Your task to perform on an android device: install app "Microsoft Excel" Image 0: 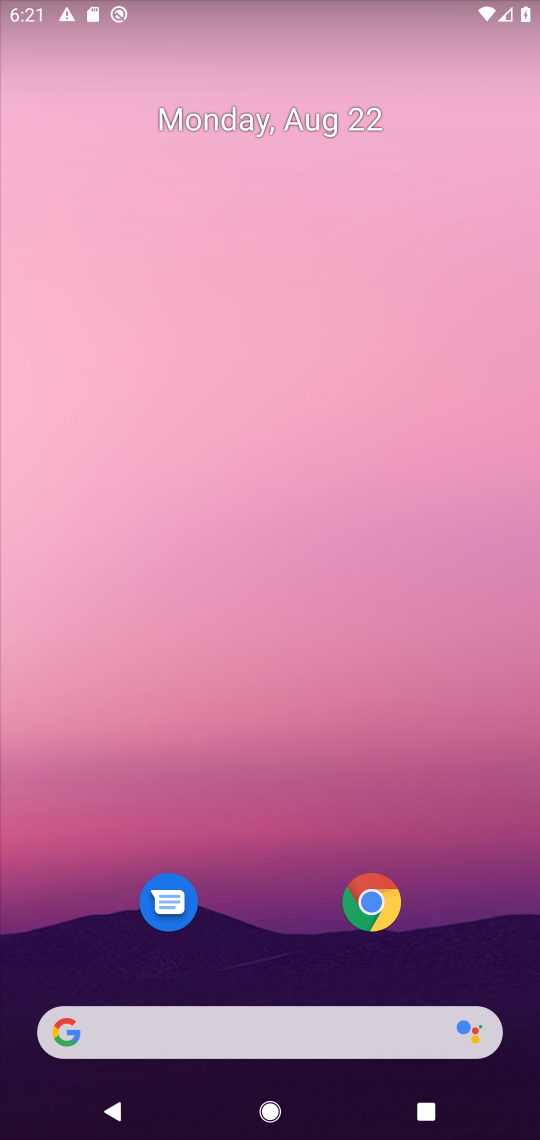
Step 0: drag from (269, 970) to (254, 17)
Your task to perform on an android device: install app "Microsoft Excel" Image 1: 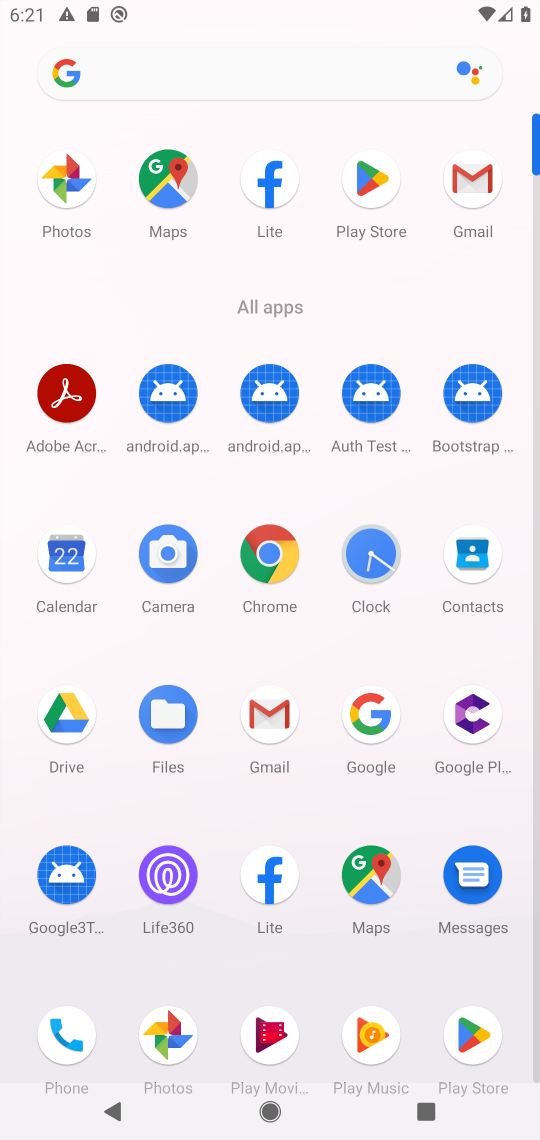
Step 1: click (377, 161)
Your task to perform on an android device: install app "Microsoft Excel" Image 2: 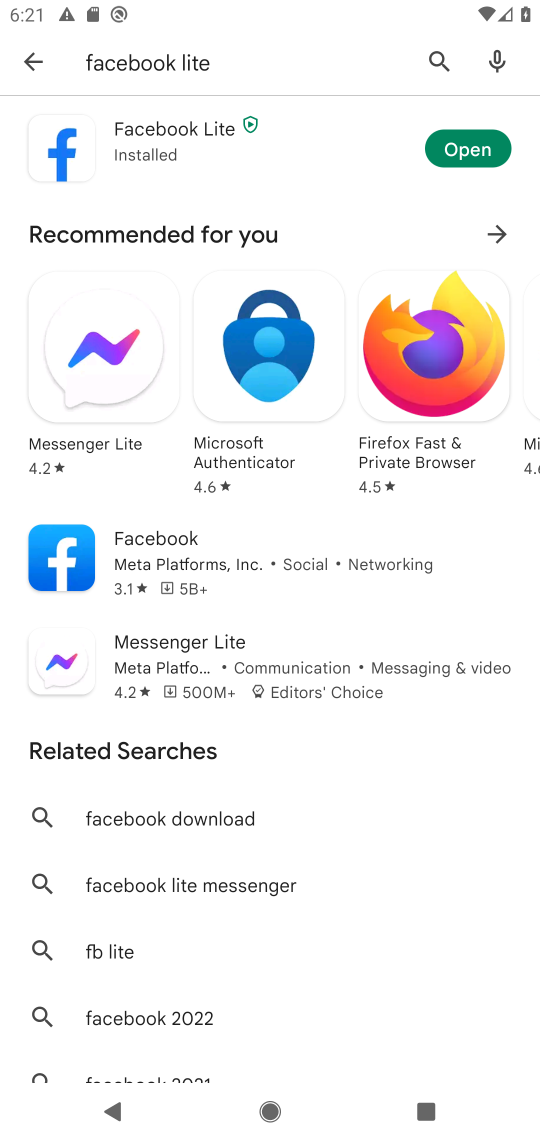
Step 2: click (28, 65)
Your task to perform on an android device: install app "Microsoft Excel" Image 3: 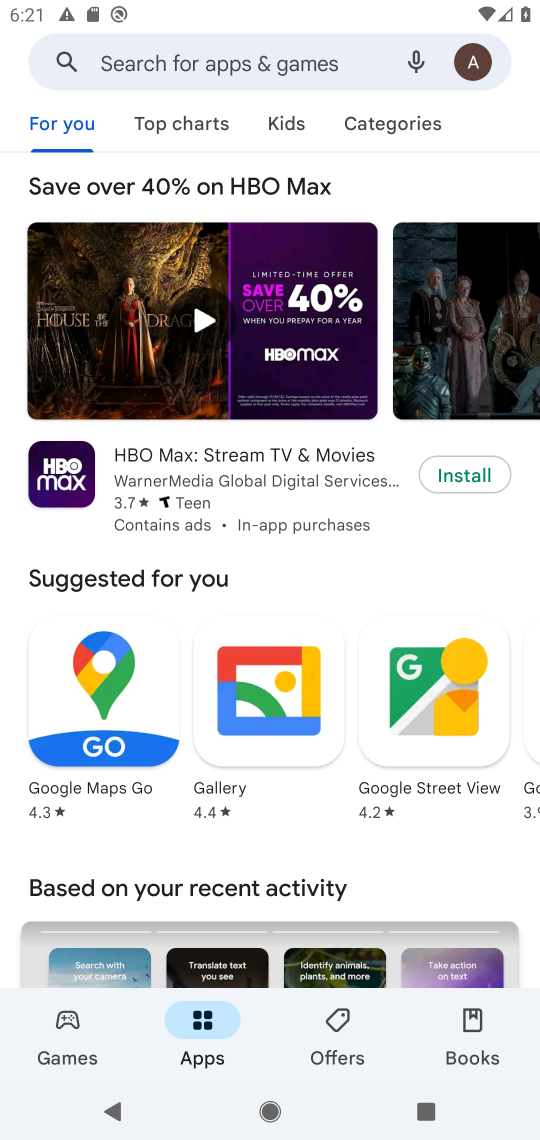
Step 3: click (195, 44)
Your task to perform on an android device: install app "Microsoft Excel" Image 4: 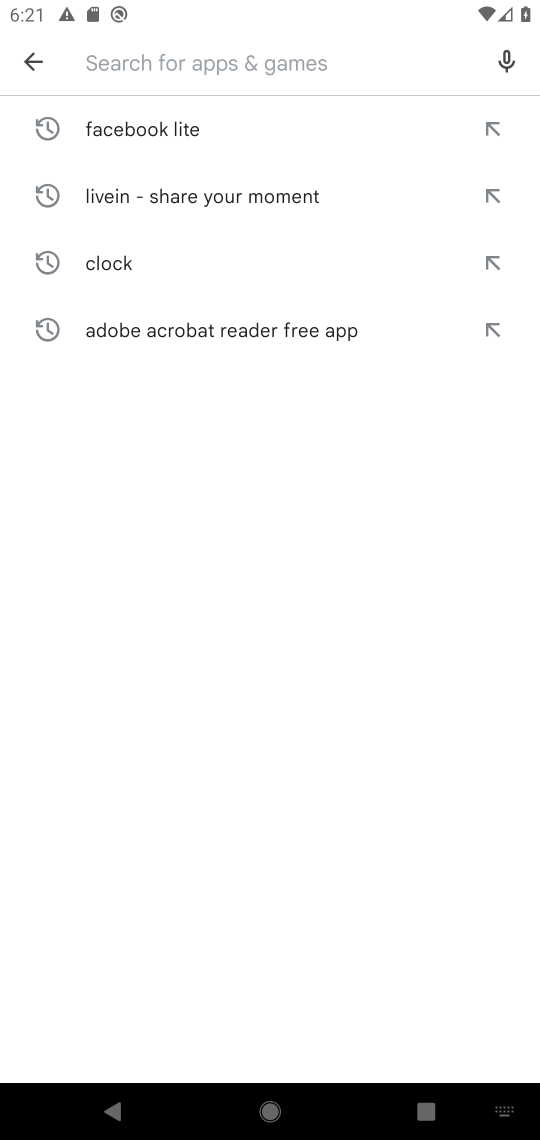
Step 4: type "Microsoft Excel"
Your task to perform on an android device: install app "Microsoft Excel" Image 5: 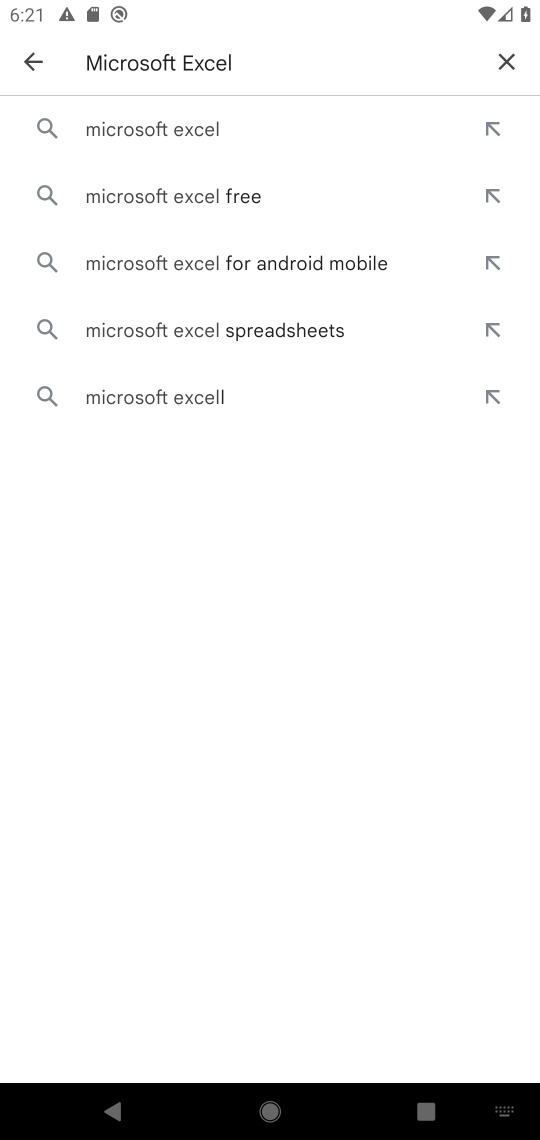
Step 5: click (195, 137)
Your task to perform on an android device: install app "Microsoft Excel" Image 6: 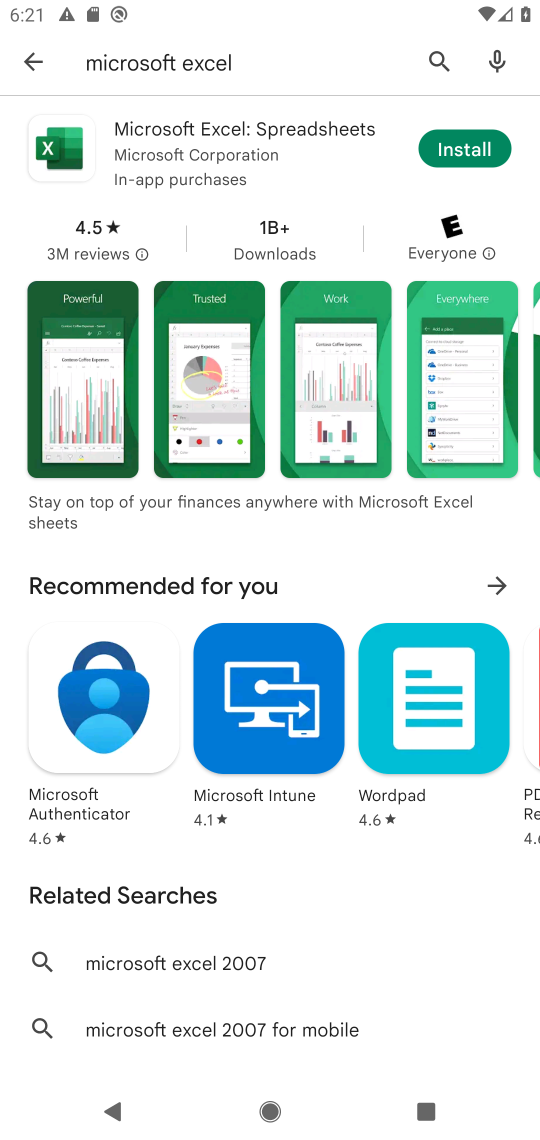
Step 6: click (454, 151)
Your task to perform on an android device: install app "Microsoft Excel" Image 7: 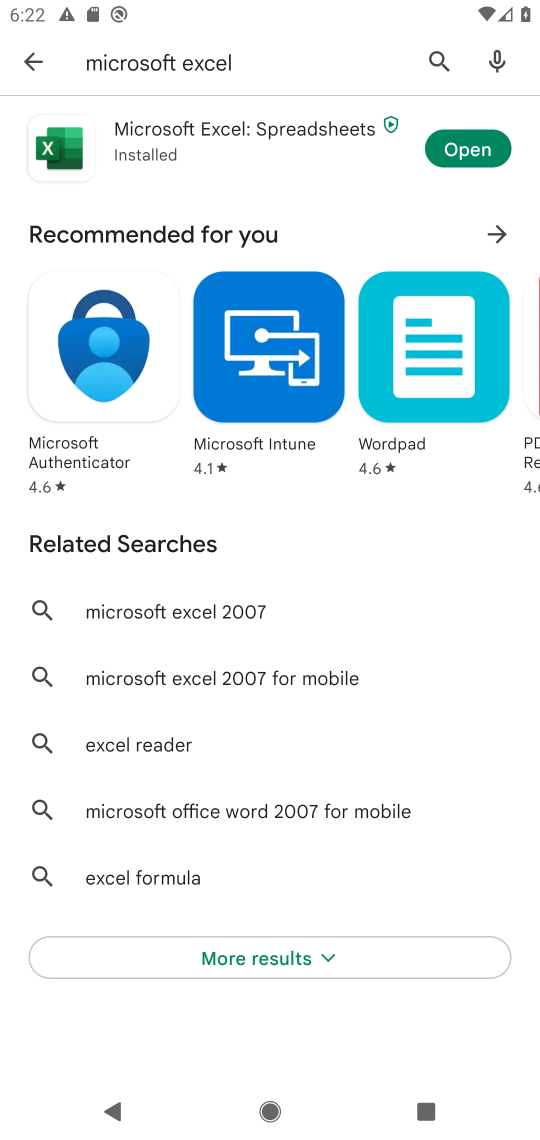
Step 7: click (454, 151)
Your task to perform on an android device: install app "Microsoft Excel" Image 8: 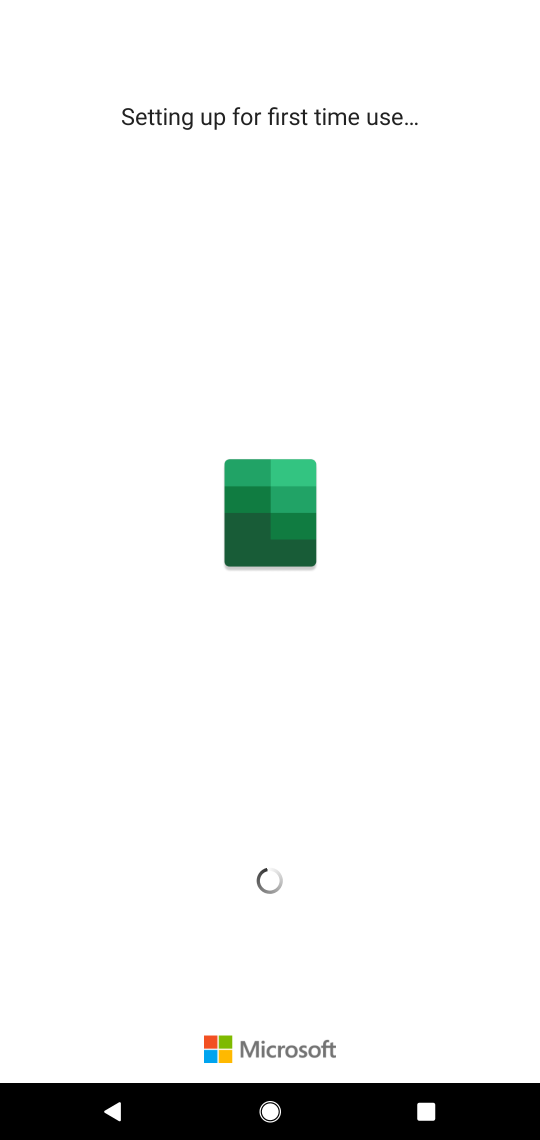
Step 8: task complete